Your task to perform on an android device: open chrome privacy settings Image 0: 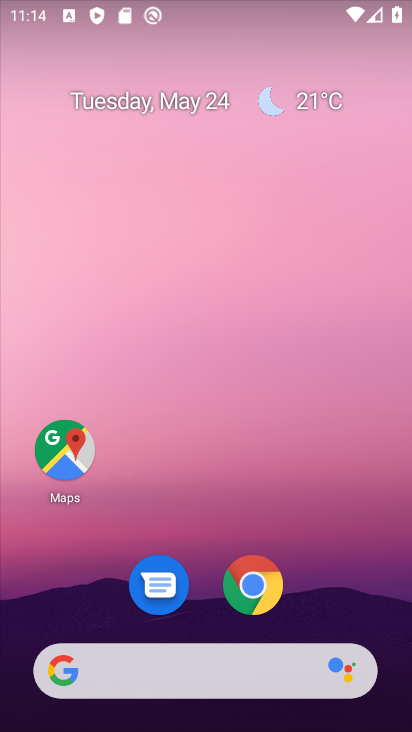
Step 0: click (267, 584)
Your task to perform on an android device: open chrome privacy settings Image 1: 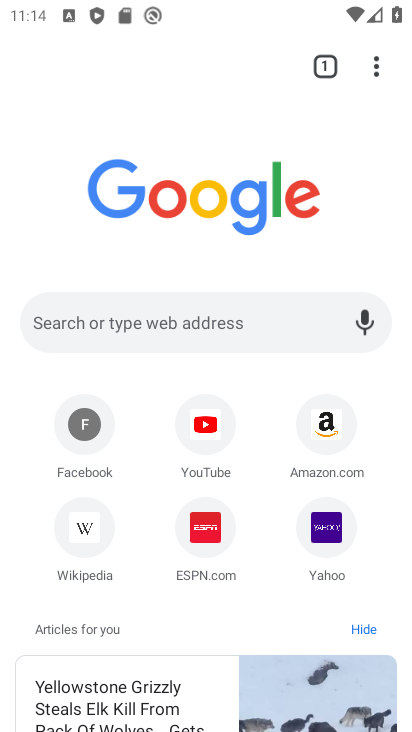
Step 1: click (370, 64)
Your task to perform on an android device: open chrome privacy settings Image 2: 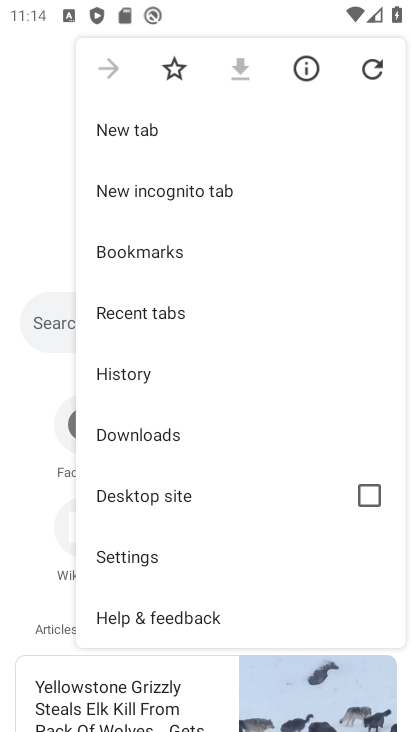
Step 2: click (200, 552)
Your task to perform on an android device: open chrome privacy settings Image 3: 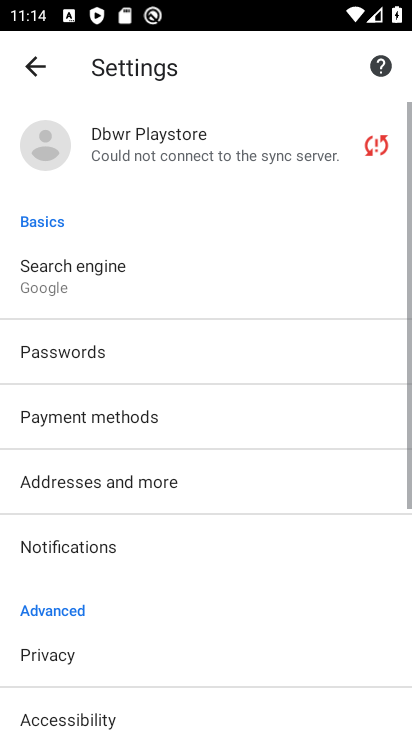
Step 3: drag from (279, 449) to (313, 285)
Your task to perform on an android device: open chrome privacy settings Image 4: 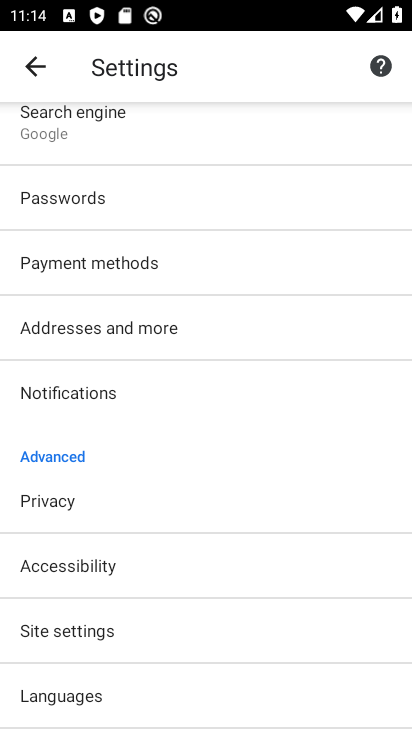
Step 4: click (202, 507)
Your task to perform on an android device: open chrome privacy settings Image 5: 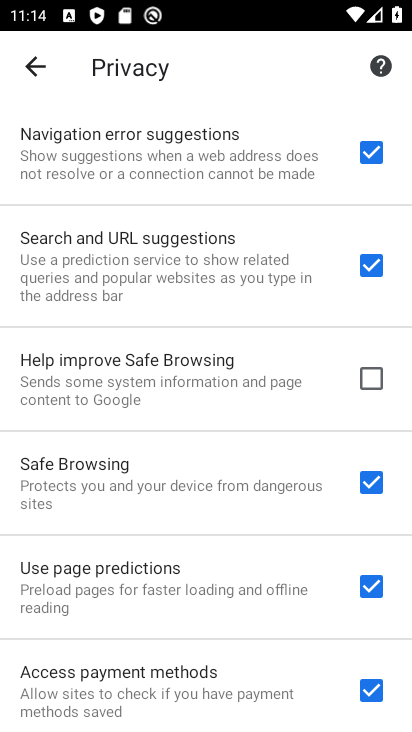
Step 5: task complete